Your task to perform on an android device: set the stopwatch Image 0: 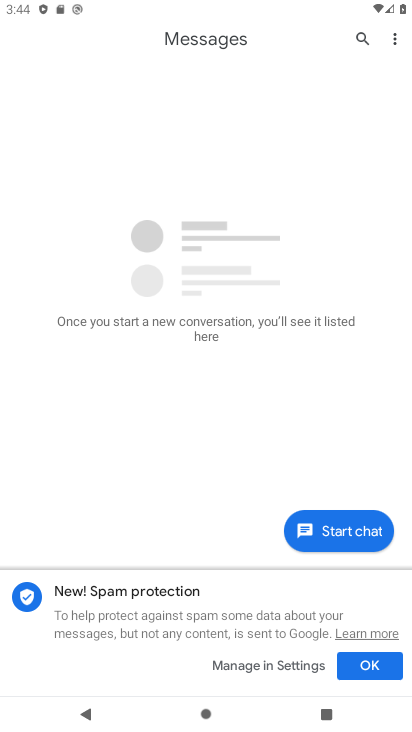
Step 0: press home button
Your task to perform on an android device: set the stopwatch Image 1: 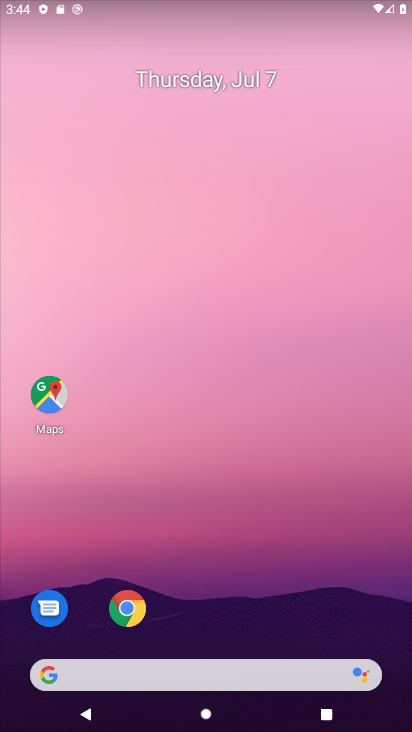
Step 1: drag from (216, 473) to (193, 235)
Your task to perform on an android device: set the stopwatch Image 2: 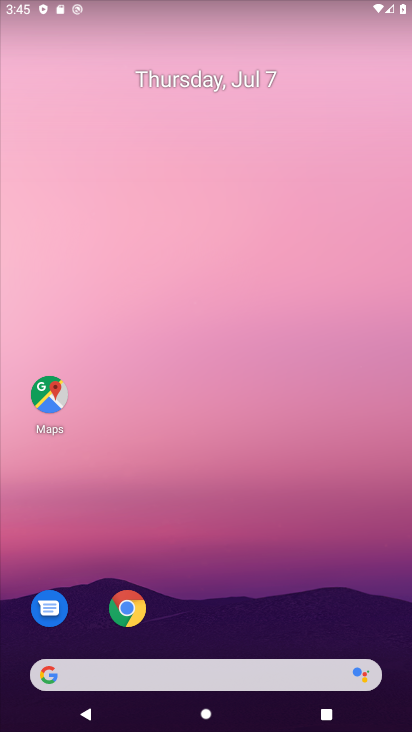
Step 2: drag from (295, 619) to (260, 241)
Your task to perform on an android device: set the stopwatch Image 3: 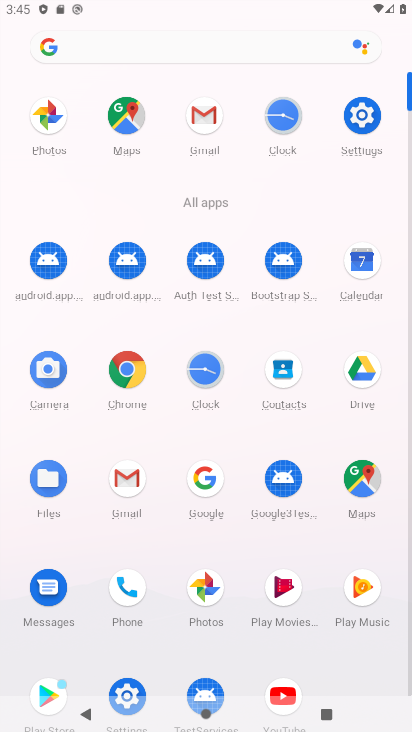
Step 3: click (284, 115)
Your task to perform on an android device: set the stopwatch Image 4: 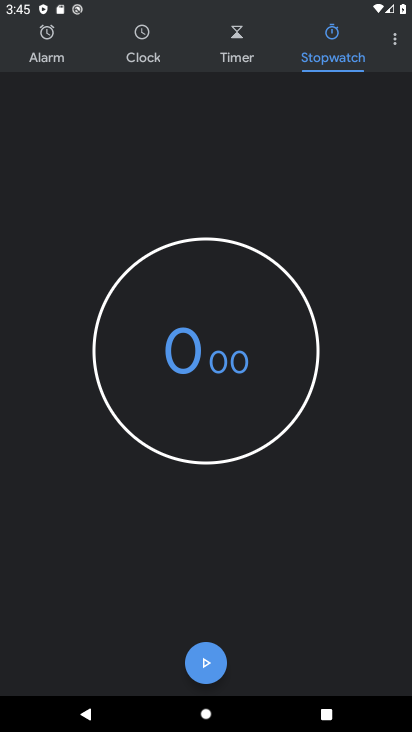
Step 4: task complete